Your task to perform on an android device: Open the calendar app, open the side menu, and click the "Day" option Image 0: 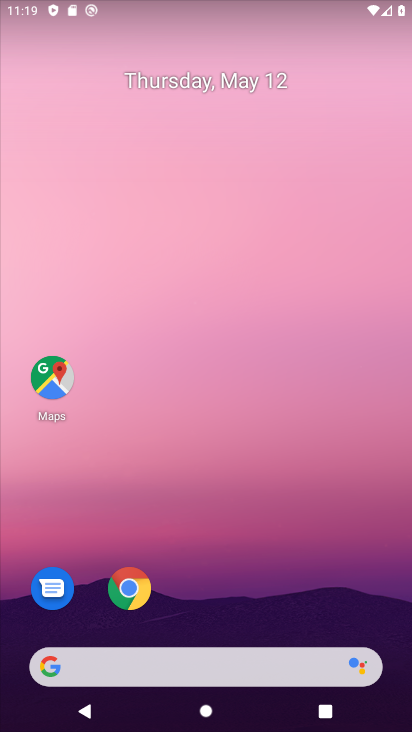
Step 0: drag from (185, 564) to (166, 317)
Your task to perform on an android device: Open the calendar app, open the side menu, and click the "Day" option Image 1: 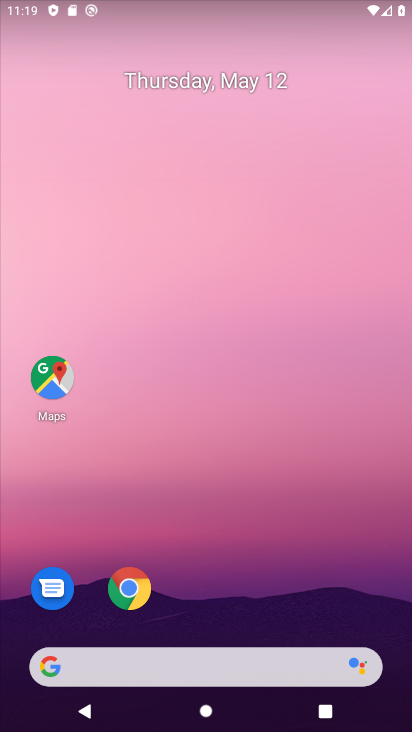
Step 1: drag from (179, 593) to (170, 202)
Your task to perform on an android device: Open the calendar app, open the side menu, and click the "Day" option Image 2: 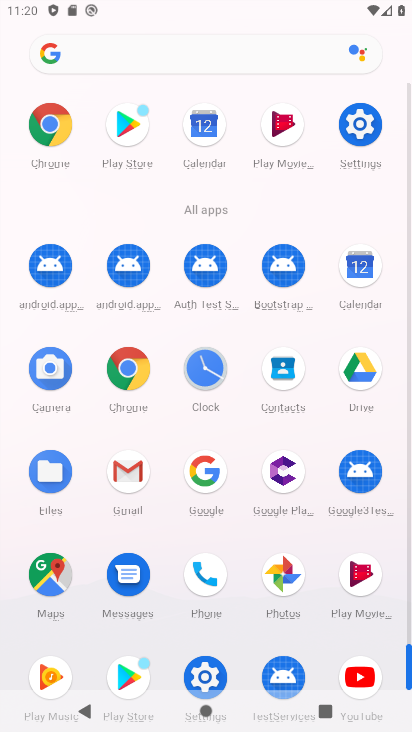
Step 2: click (368, 265)
Your task to perform on an android device: Open the calendar app, open the side menu, and click the "Day" option Image 3: 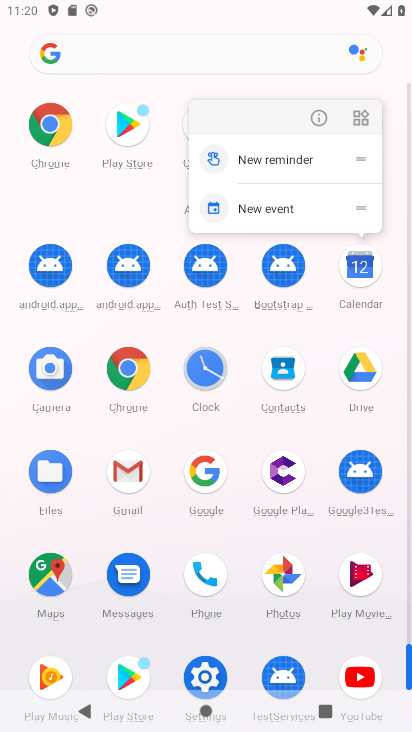
Step 3: click (308, 113)
Your task to perform on an android device: Open the calendar app, open the side menu, and click the "Day" option Image 4: 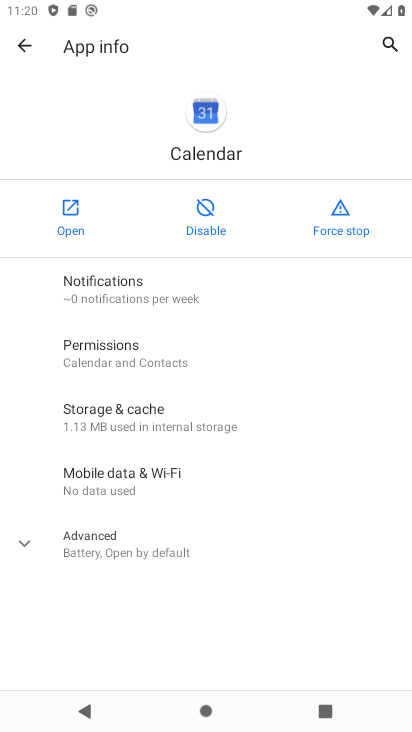
Step 4: click (69, 214)
Your task to perform on an android device: Open the calendar app, open the side menu, and click the "Day" option Image 5: 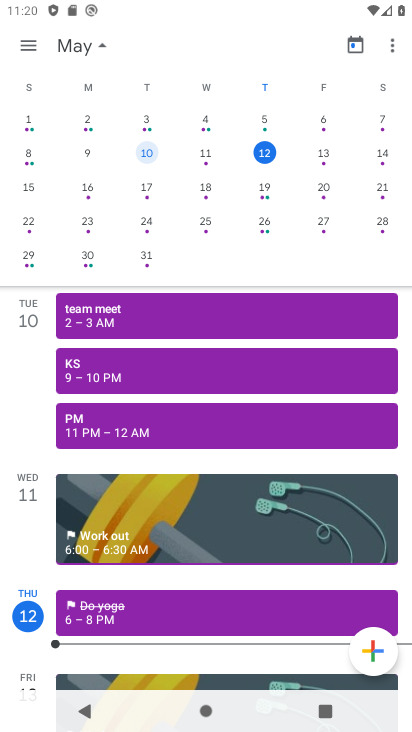
Step 5: drag from (132, 571) to (169, 316)
Your task to perform on an android device: Open the calendar app, open the side menu, and click the "Day" option Image 6: 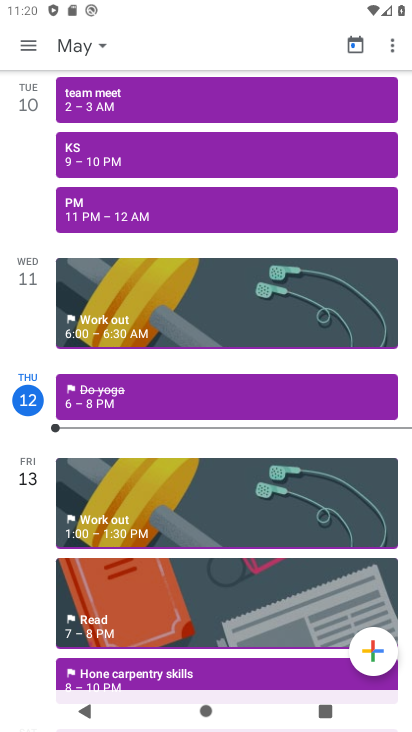
Step 6: click (82, 49)
Your task to perform on an android device: Open the calendar app, open the side menu, and click the "Day" option Image 7: 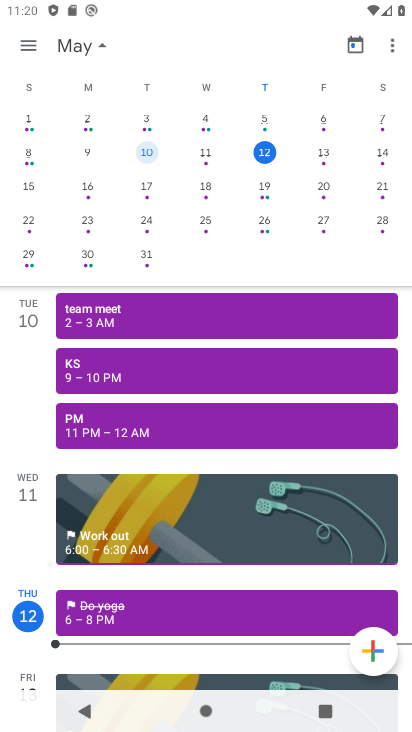
Step 7: click (35, 48)
Your task to perform on an android device: Open the calendar app, open the side menu, and click the "Day" option Image 8: 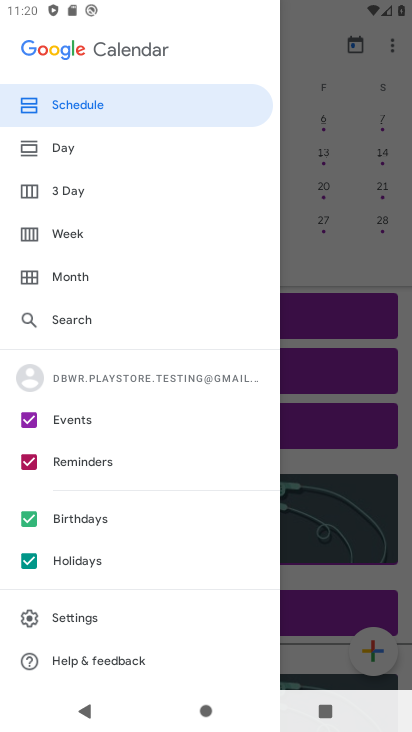
Step 8: click (96, 149)
Your task to perform on an android device: Open the calendar app, open the side menu, and click the "Day" option Image 9: 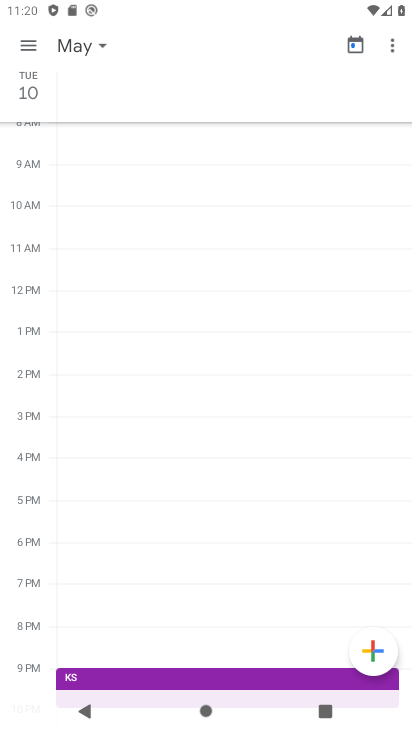
Step 9: task complete